Your task to perform on an android device: find snoozed emails in the gmail app Image 0: 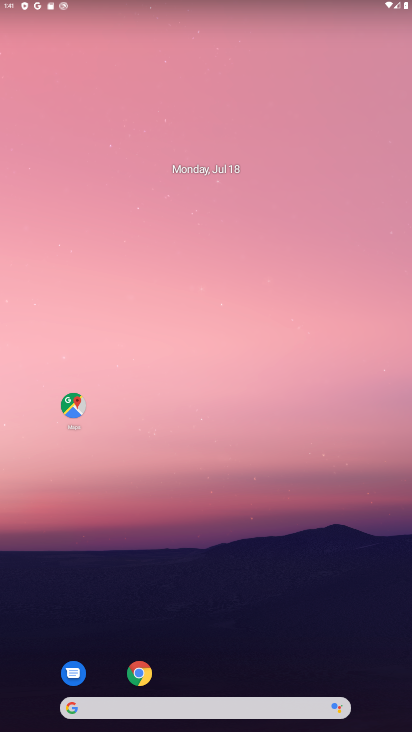
Step 0: drag from (212, 702) to (280, 82)
Your task to perform on an android device: find snoozed emails in the gmail app Image 1: 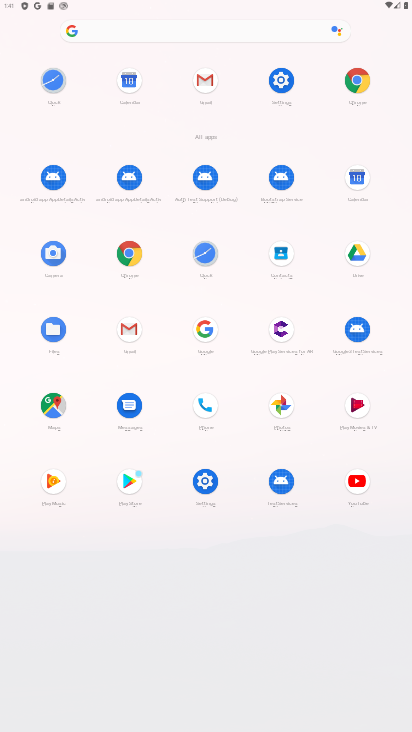
Step 1: click (205, 80)
Your task to perform on an android device: find snoozed emails in the gmail app Image 2: 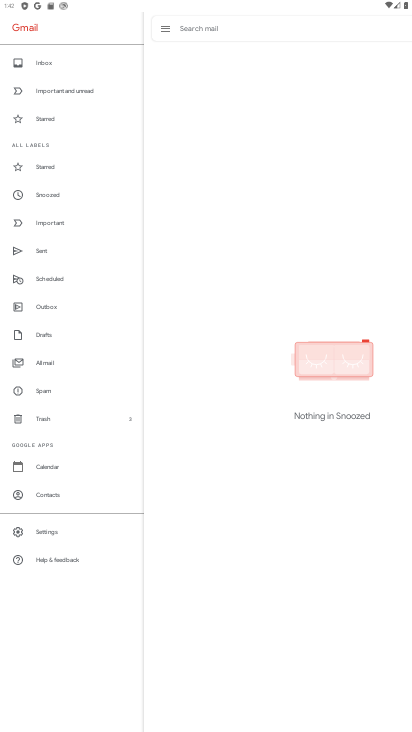
Step 2: click (59, 196)
Your task to perform on an android device: find snoozed emails in the gmail app Image 3: 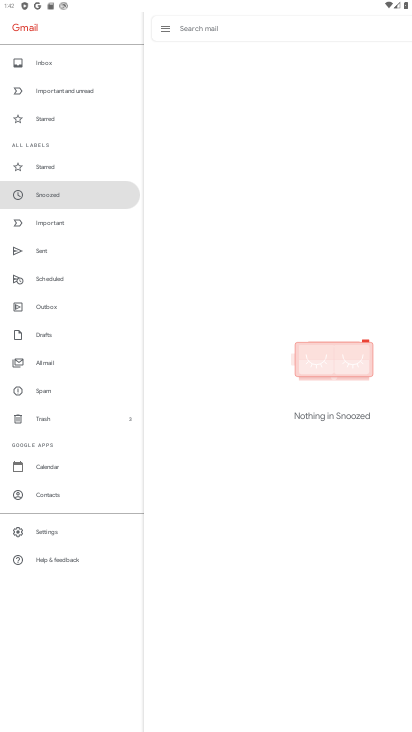
Step 3: task complete